Your task to perform on an android device: open chrome and create a bookmark for the current page Image 0: 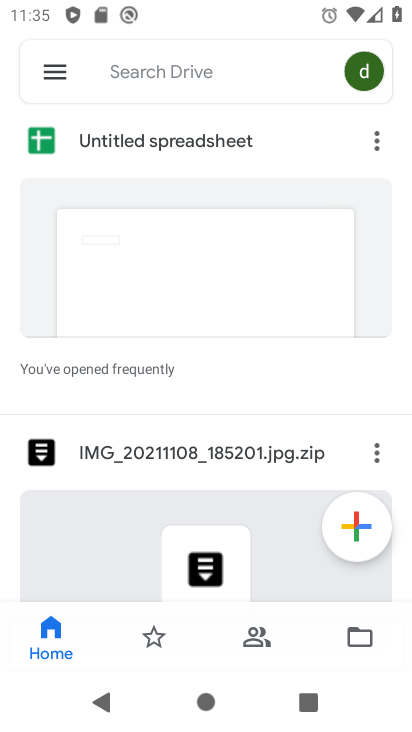
Step 0: press home button
Your task to perform on an android device: open chrome and create a bookmark for the current page Image 1: 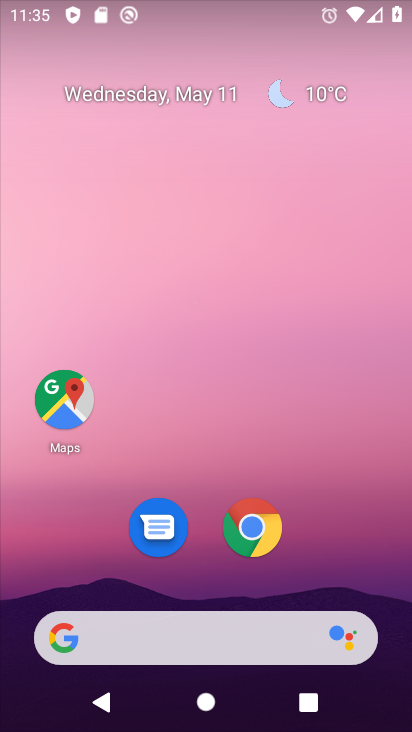
Step 1: click (251, 524)
Your task to perform on an android device: open chrome and create a bookmark for the current page Image 2: 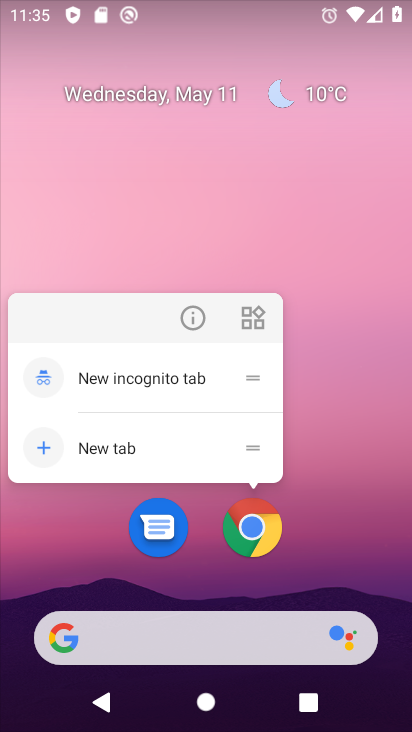
Step 2: click (244, 505)
Your task to perform on an android device: open chrome and create a bookmark for the current page Image 3: 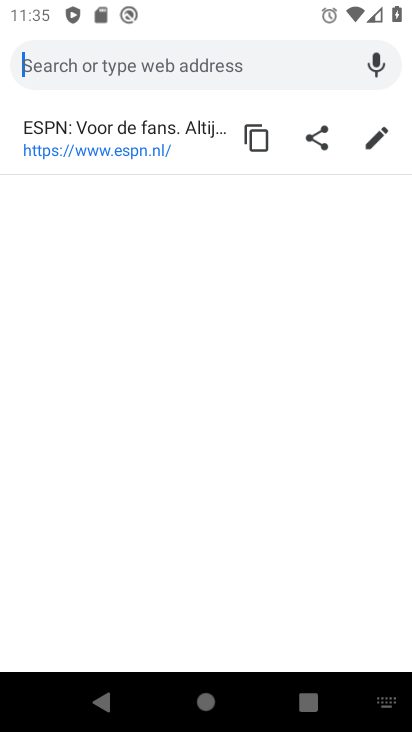
Step 3: press back button
Your task to perform on an android device: open chrome and create a bookmark for the current page Image 4: 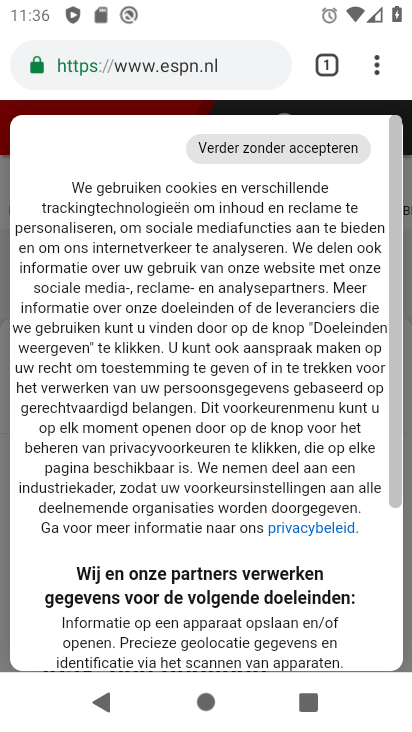
Step 4: click (382, 70)
Your task to perform on an android device: open chrome and create a bookmark for the current page Image 5: 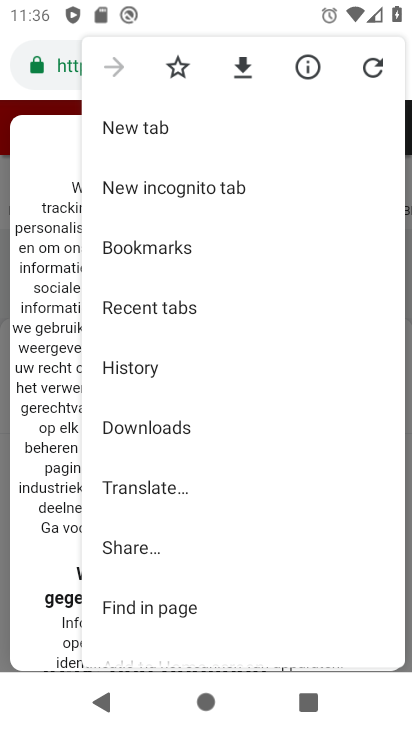
Step 5: click (170, 74)
Your task to perform on an android device: open chrome and create a bookmark for the current page Image 6: 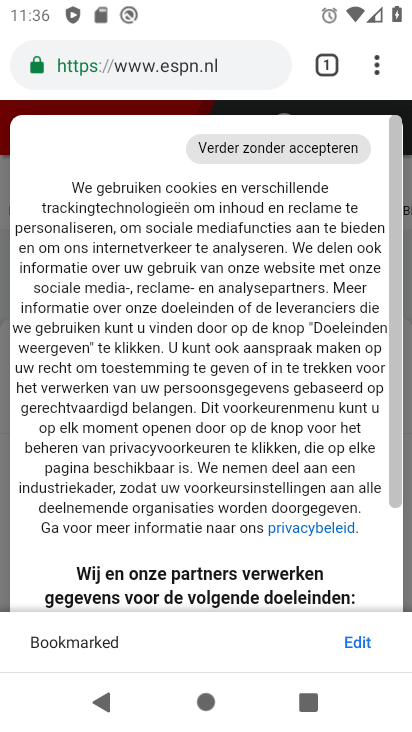
Step 6: task complete